Your task to perform on an android device: What's on my calendar tomorrow? Image 0: 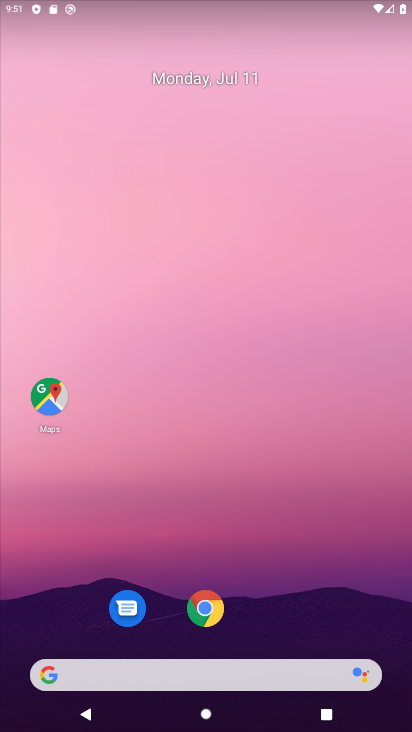
Step 0: drag from (15, 717) to (353, 0)
Your task to perform on an android device: What's on my calendar tomorrow? Image 1: 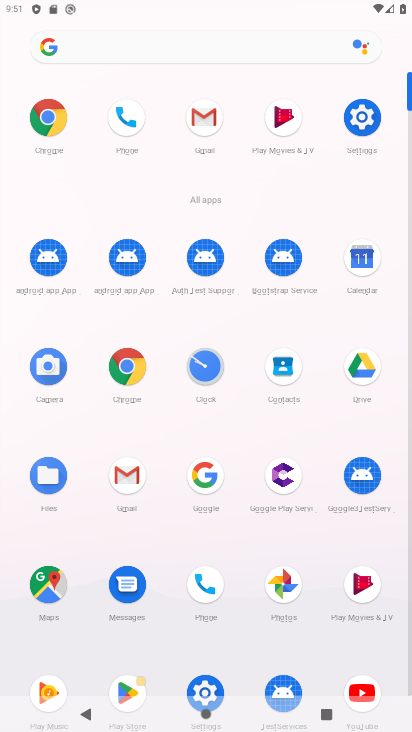
Step 1: click (366, 268)
Your task to perform on an android device: What's on my calendar tomorrow? Image 2: 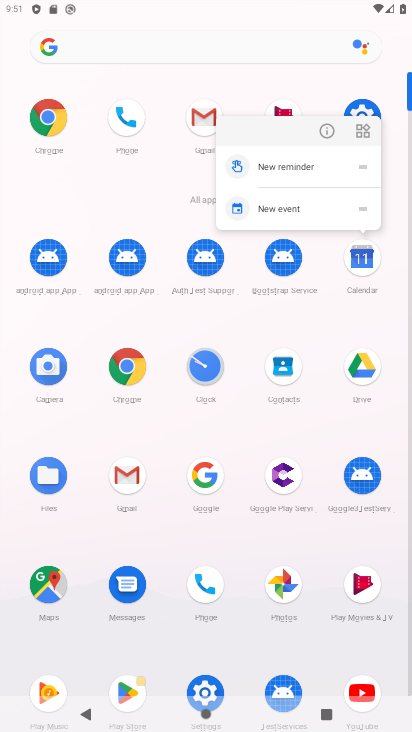
Step 2: click (358, 256)
Your task to perform on an android device: What's on my calendar tomorrow? Image 3: 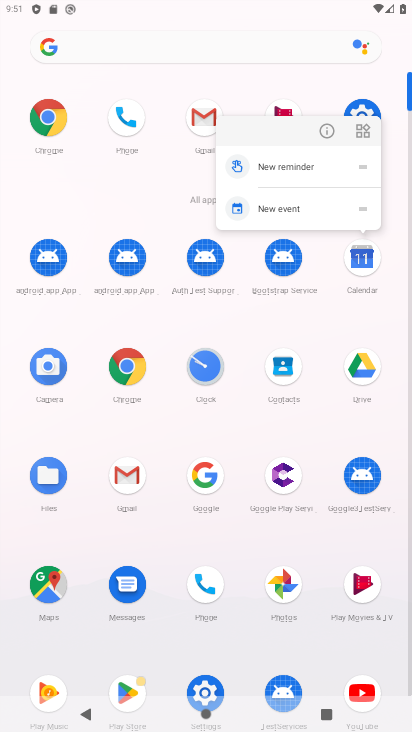
Step 3: click (365, 251)
Your task to perform on an android device: What's on my calendar tomorrow? Image 4: 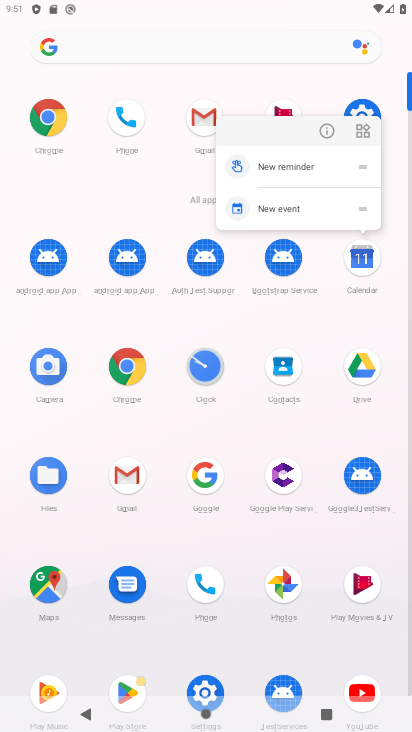
Step 4: click (352, 261)
Your task to perform on an android device: What's on my calendar tomorrow? Image 5: 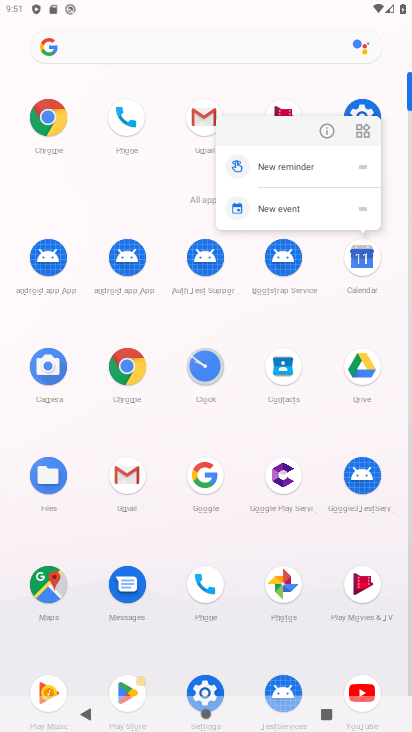
Step 5: click (354, 264)
Your task to perform on an android device: What's on my calendar tomorrow? Image 6: 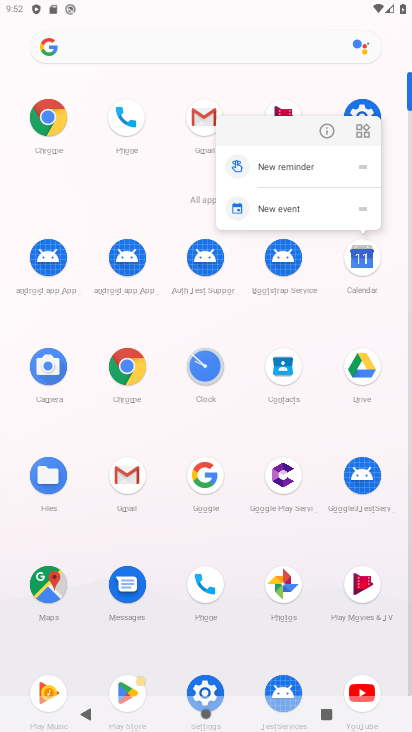
Step 6: click (362, 258)
Your task to perform on an android device: What's on my calendar tomorrow? Image 7: 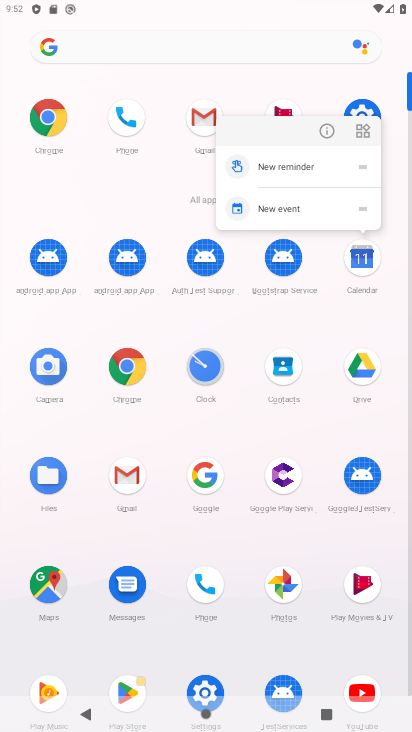
Step 7: click (358, 276)
Your task to perform on an android device: What's on my calendar tomorrow? Image 8: 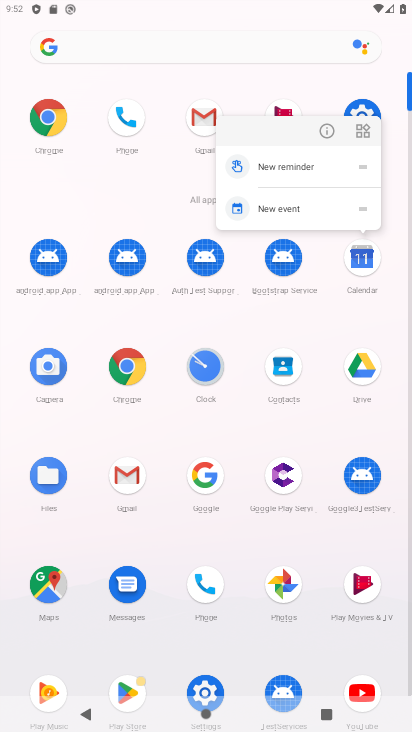
Step 8: task complete